Your task to perform on an android device: Do I have any events this weekend? Image 0: 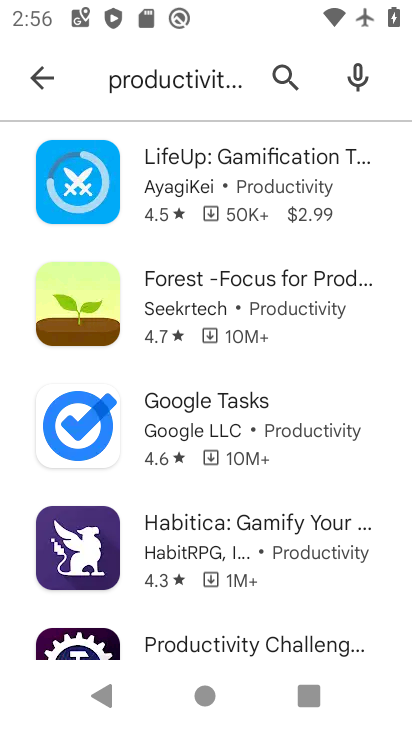
Step 0: press home button
Your task to perform on an android device: Do I have any events this weekend? Image 1: 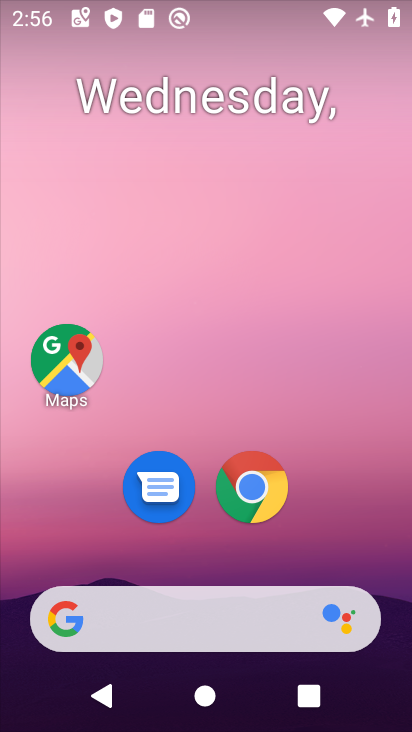
Step 1: drag from (381, 554) to (404, 138)
Your task to perform on an android device: Do I have any events this weekend? Image 2: 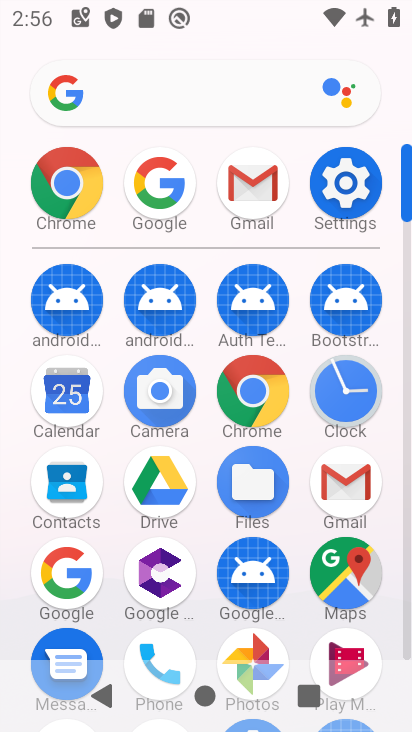
Step 2: click (69, 403)
Your task to perform on an android device: Do I have any events this weekend? Image 3: 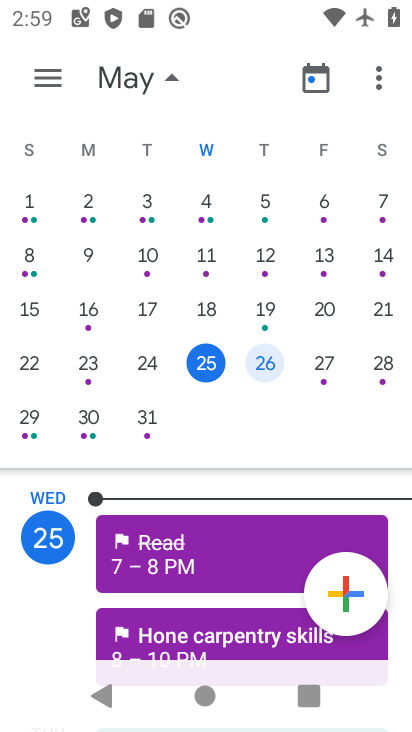
Step 3: click (327, 368)
Your task to perform on an android device: Do I have any events this weekend? Image 4: 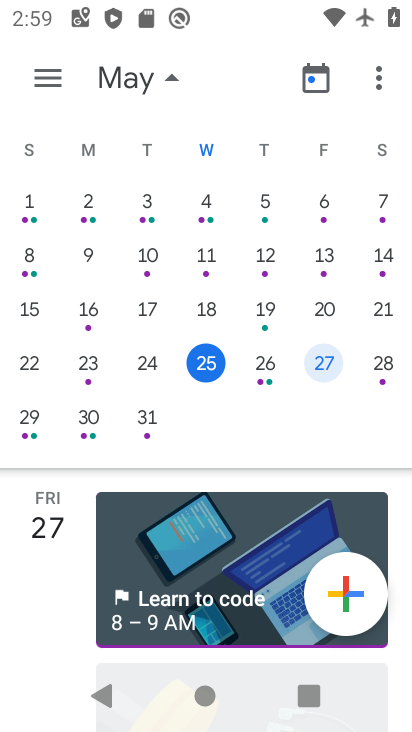
Step 4: task complete